Your task to perform on an android device: Open Google Chrome Image 0: 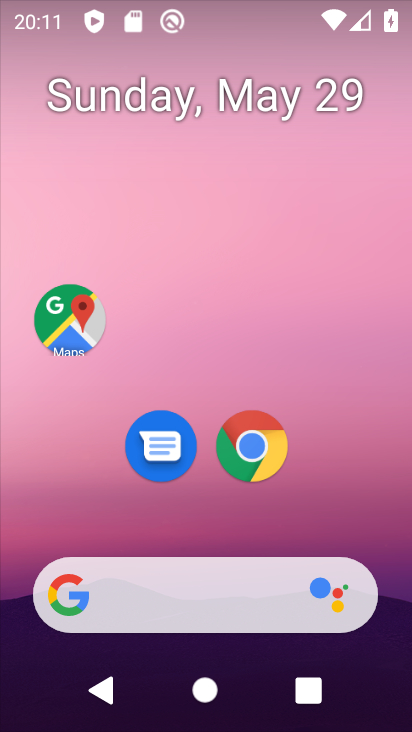
Step 0: click (266, 451)
Your task to perform on an android device: Open Google Chrome Image 1: 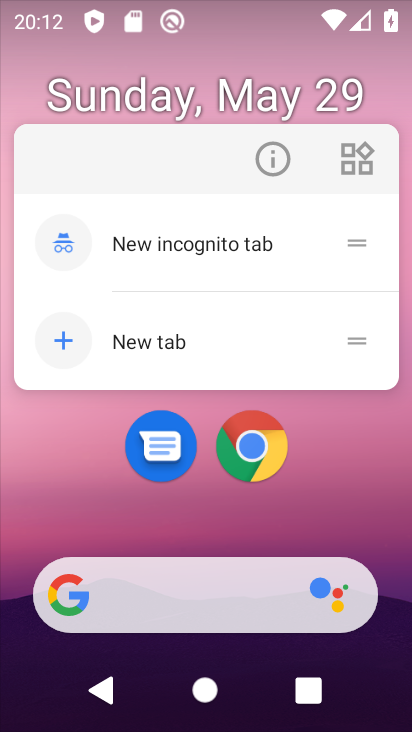
Step 1: click (267, 445)
Your task to perform on an android device: Open Google Chrome Image 2: 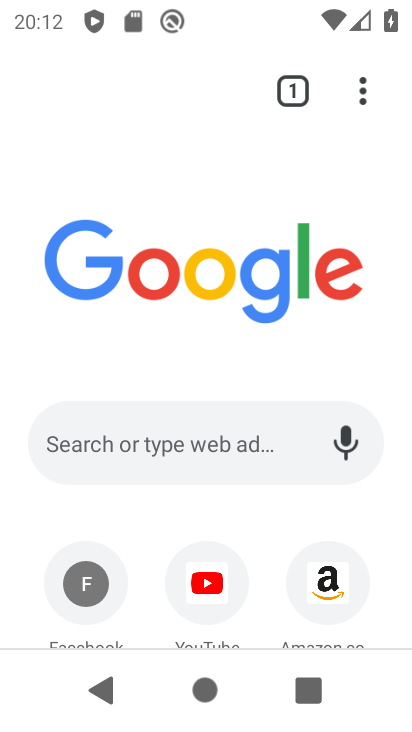
Step 2: task complete